Your task to perform on an android device: Go to eBay Image 0: 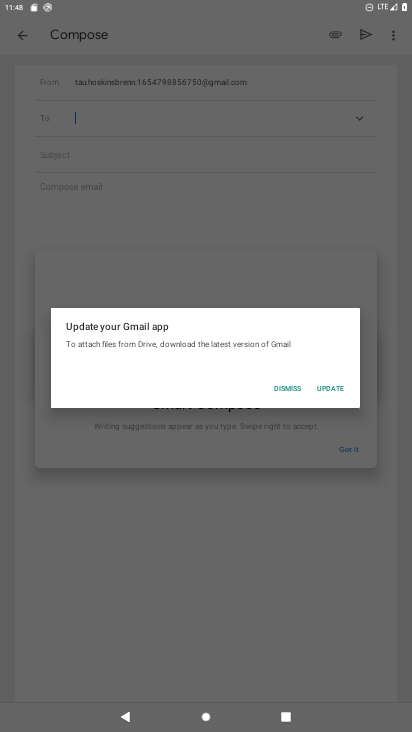
Step 0: press home button
Your task to perform on an android device: Go to eBay Image 1: 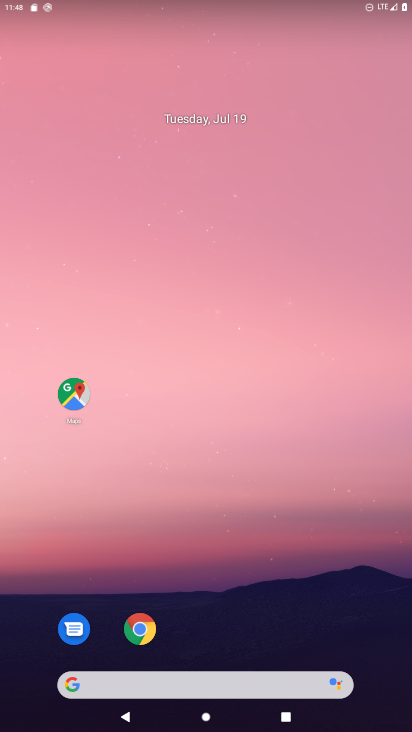
Step 1: drag from (174, 645) to (136, 633)
Your task to perform on an android device: Go to eBay Image 2: 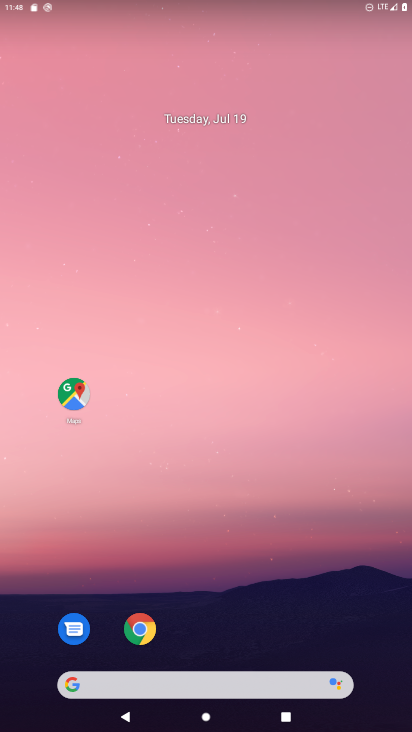
Step 2: click (136, 633)
Your task to perform on an android device: Go to eBay Image 3: 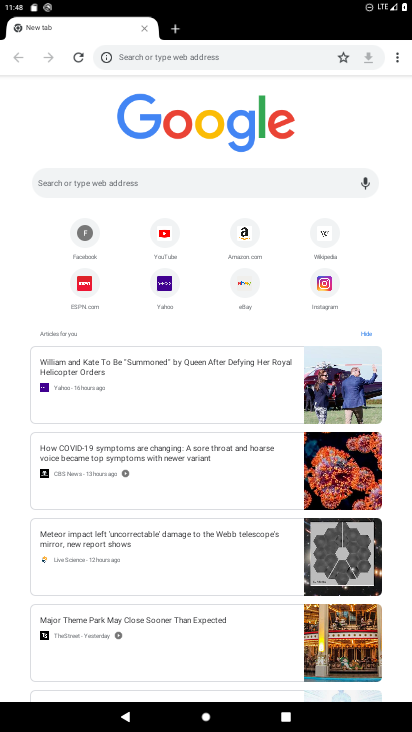
Step 3: click (246, 286)
Your task to perform on an android device: Go to eBay Image 4: 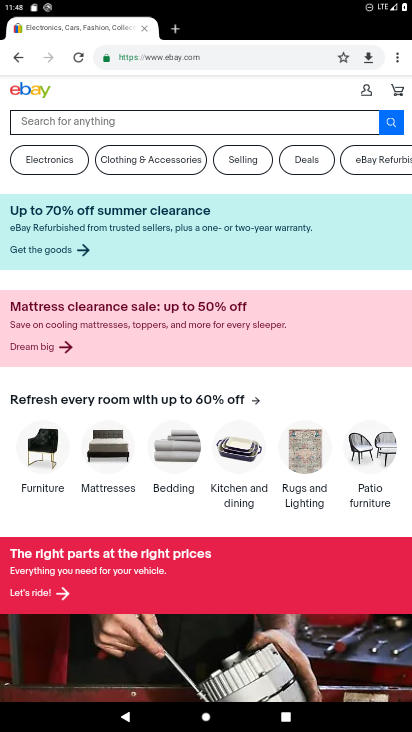
Step 4: task complete